Your task to perform on an android device: find snoozed emails in the gmail app Image 0: 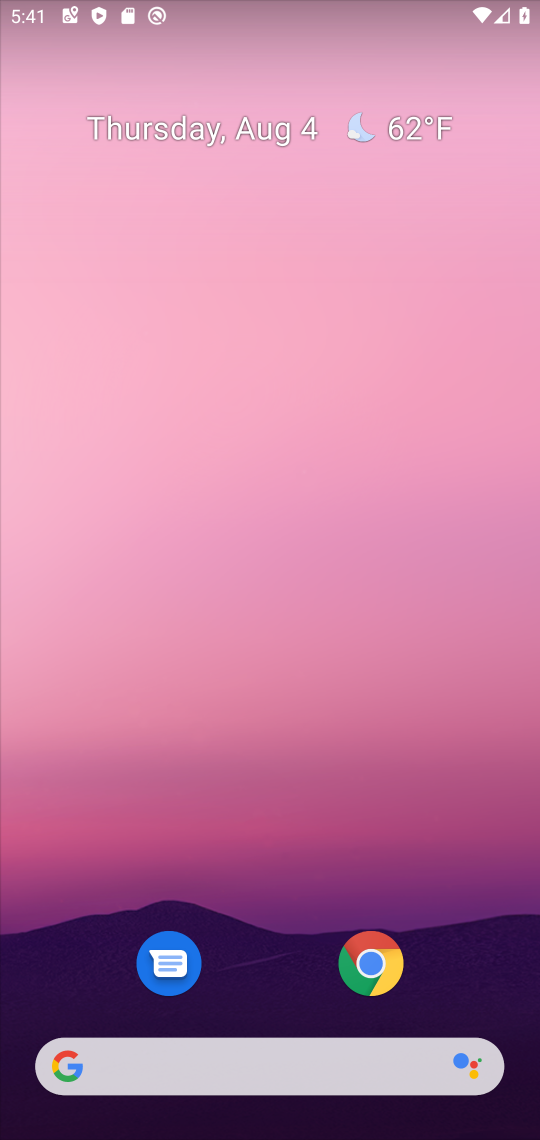
Step 0: drag from (312, 878) to (188, 9)
Your task to perform on an android device: find snoozed emails in the gmail app Image 1: 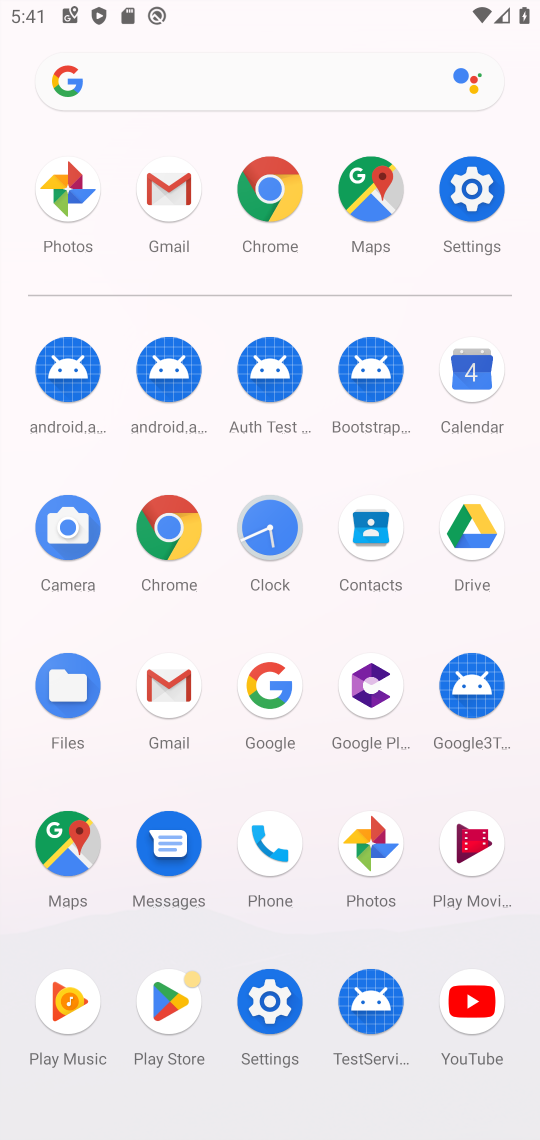
Step 1: click (174, 198)
Your task to perform on an android device: find snoozed emails in the gmail app Image 2: 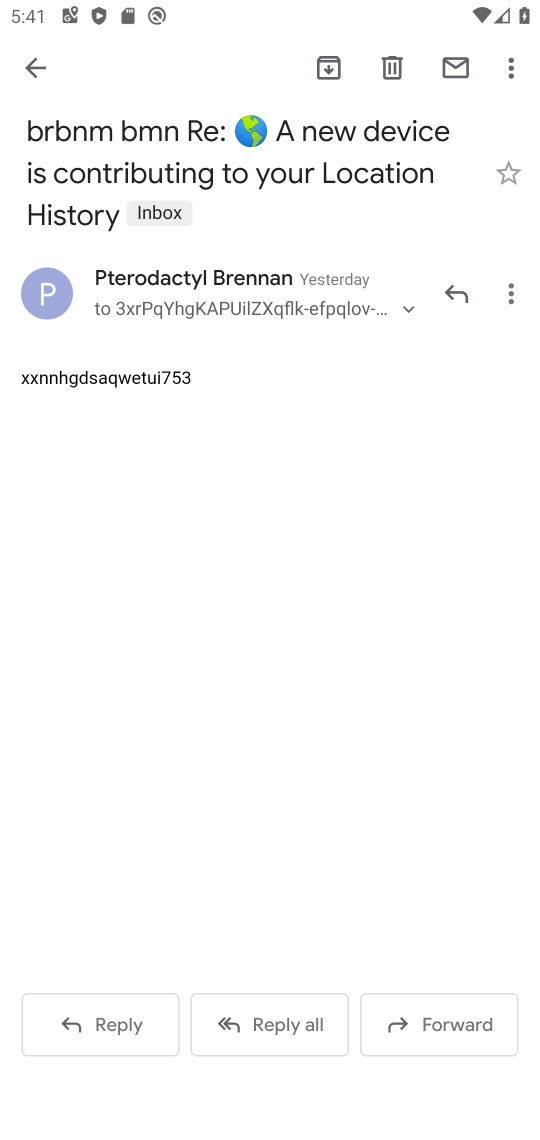
Step 2: click (31, 60)
Your task to perform on an android device: find snoozed emails in the gmail app Image 3: 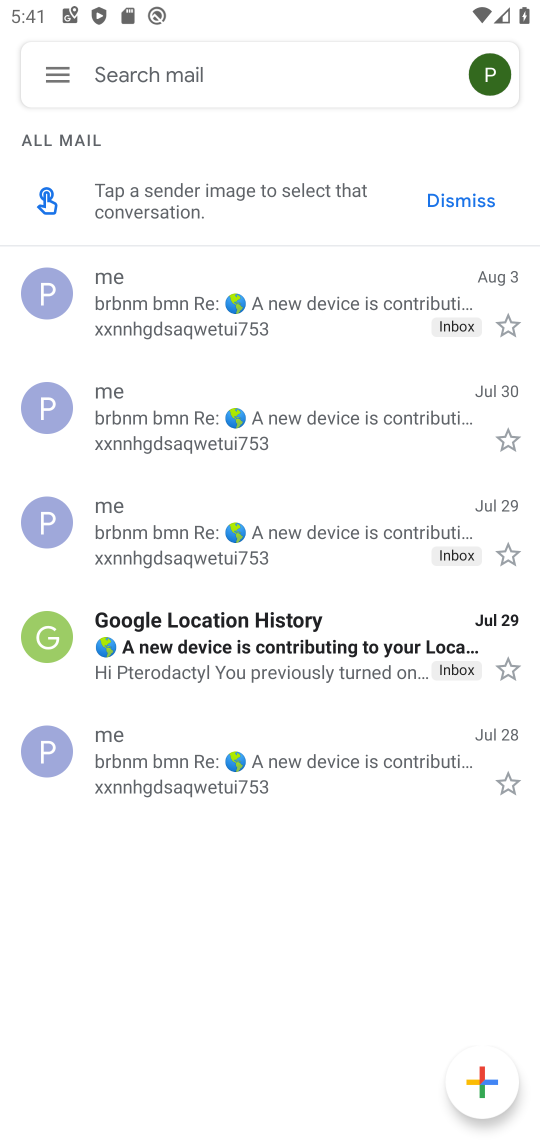
Step 3: click (56, 75)
Your task to perform on an android device: find snoozed emails in the gmail app Image 4: 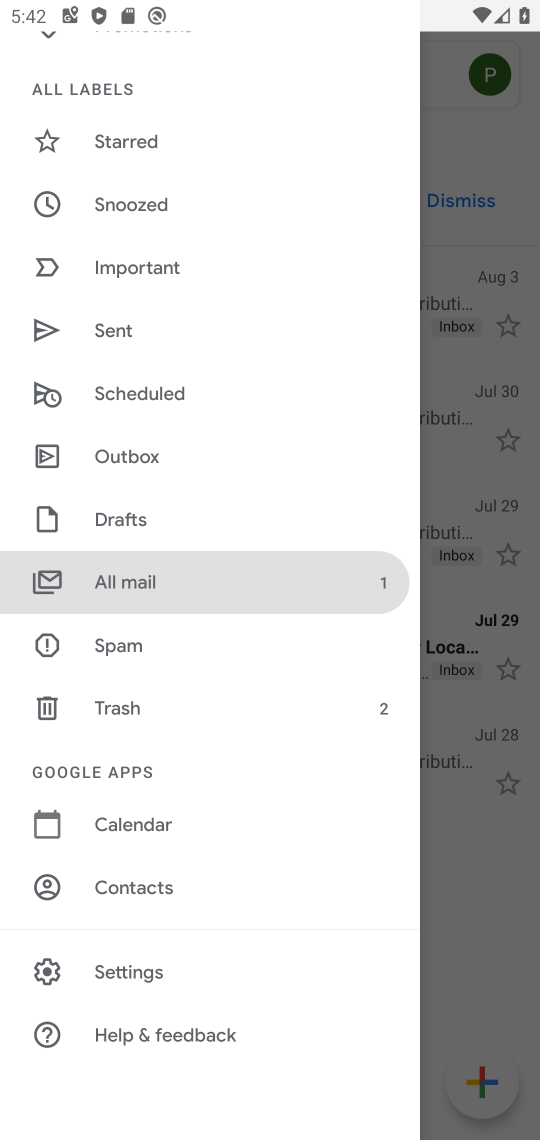
Step 4: click (132, 196)
Your task to perform on an android device: find snoozed emails in the gmail app Image 5: 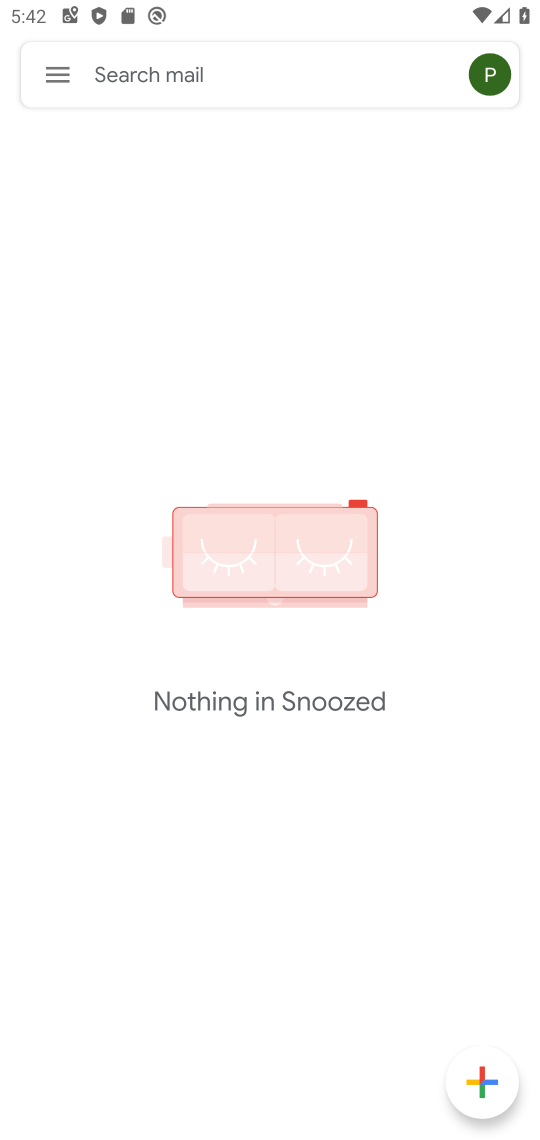
Step 5: task complete